Your task to perform on an android device: turn on bluetooth scan Image 0: 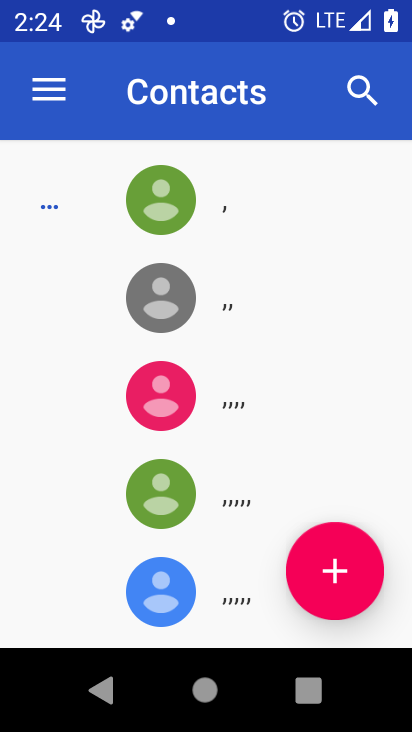
Step 0: press home button
Your task to perform on an android device: turn on bluetooth scan Image 1: 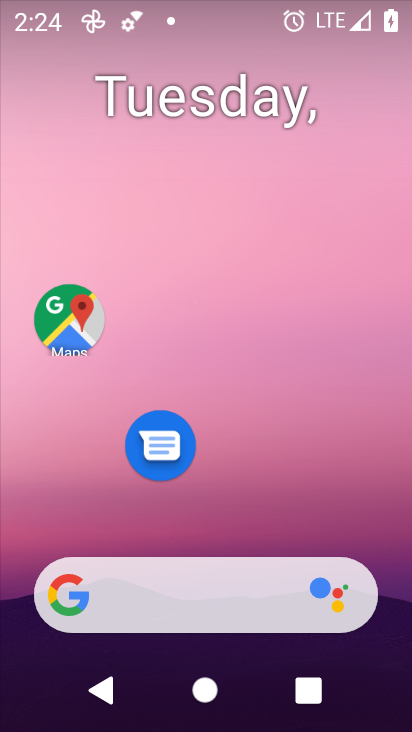
Step 1: drag from (272, 512) to (237, 60)
Your task to perform on an android device: turn on bluetooth scan Image 2: 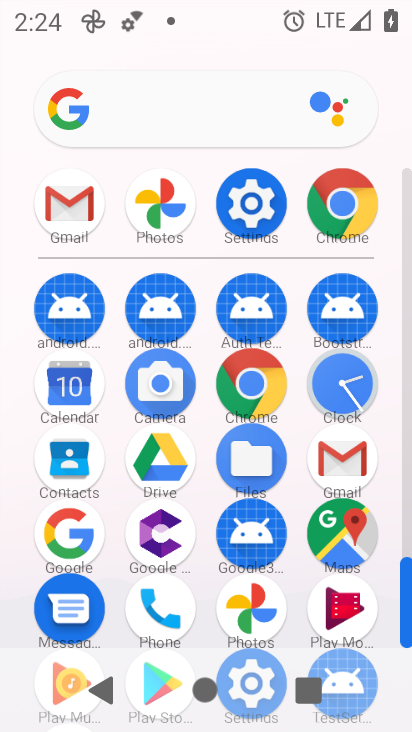
Step 2: click (240, 203)
Your task to perform on an android device: turn on bluetooth scan Image 3: 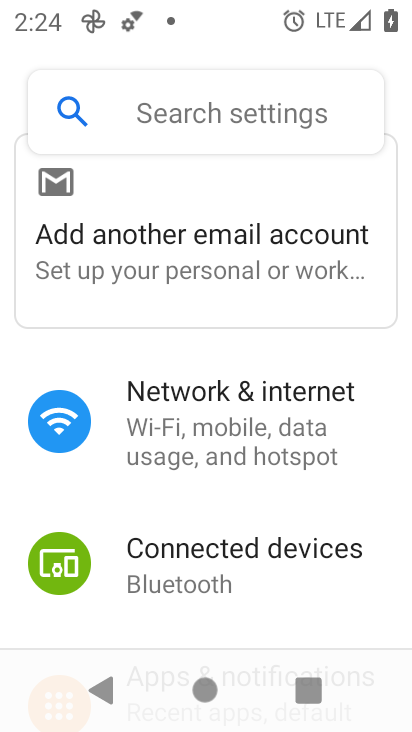
Step 3: drag from (314, 589) to (286, 206)
Your task to perform on an android device: turn on bluetooth scan Image 4: 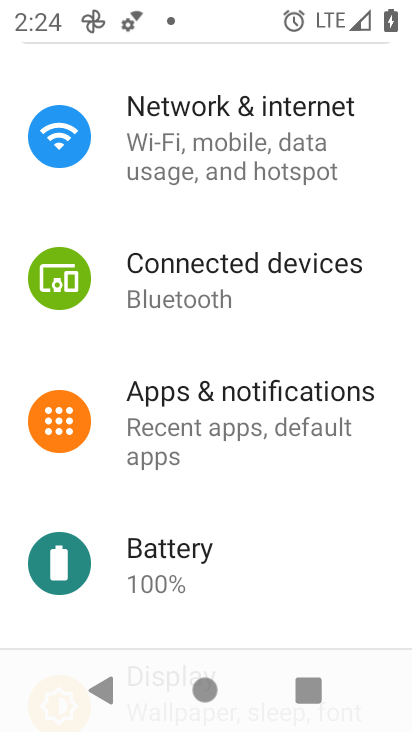
Step 4: drag from (299, 464) to (275, 204)
Your task to perform on an android device: turn on bluetooth scan Image 5: 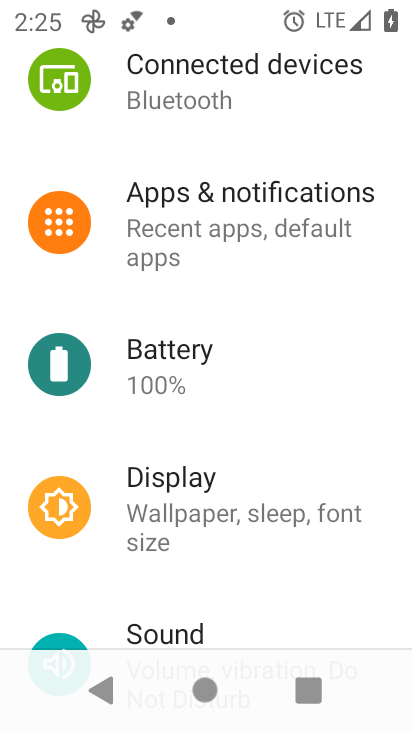
Step 5: drag from (284, 419) to (264, 161)
Your task to perform on an android device: turn on bluetooth scan Image 6: 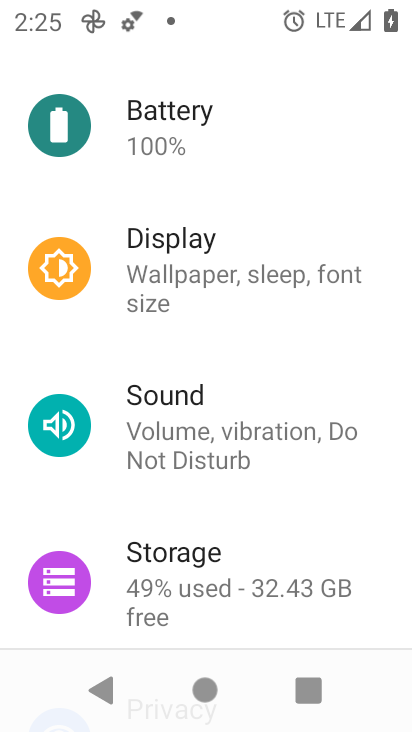
Step 6: drag from (235, 365) to (215, 129)
Your task to perform on an android device: turn on bluetooth scan Image 7: 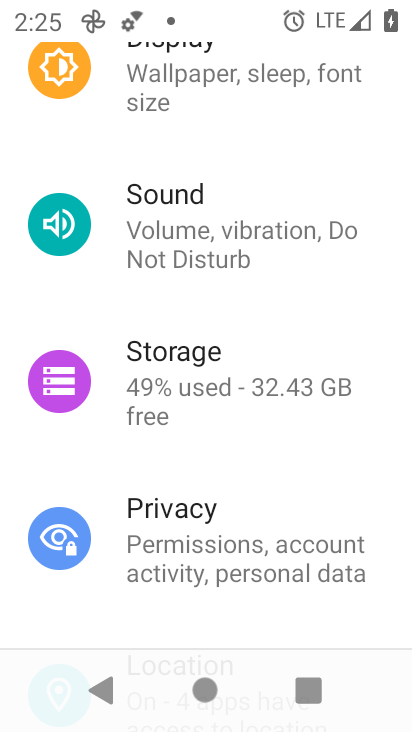
Step 7: drag from (218, 441) to (207, 227)
Your task to perform on an android device: turn on bluetooth scan Image 8: 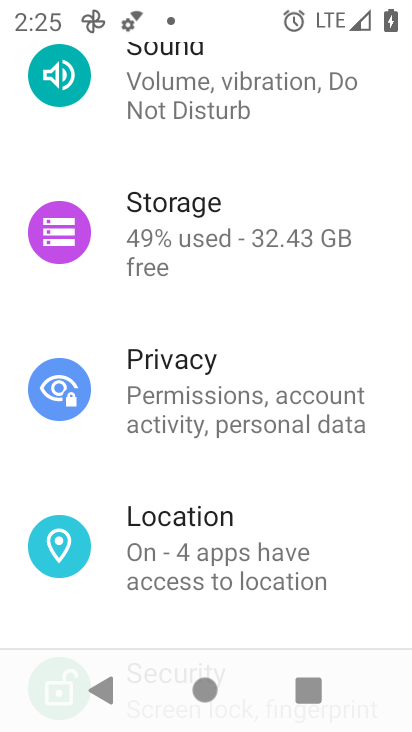
Step 8: click (188, 516)
Your task to perform on an android device: turn on bluetooth scan Image 9: 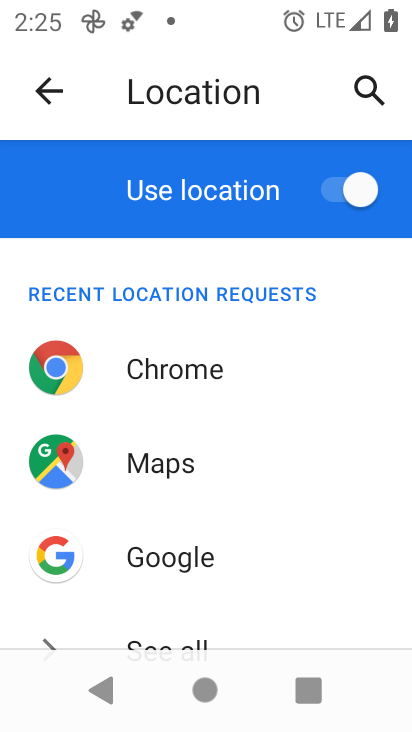
Step 9: drag from (226, 571) to (198, 147)
Your task to perform on an android device: turn on bluetooth scan Image 10: 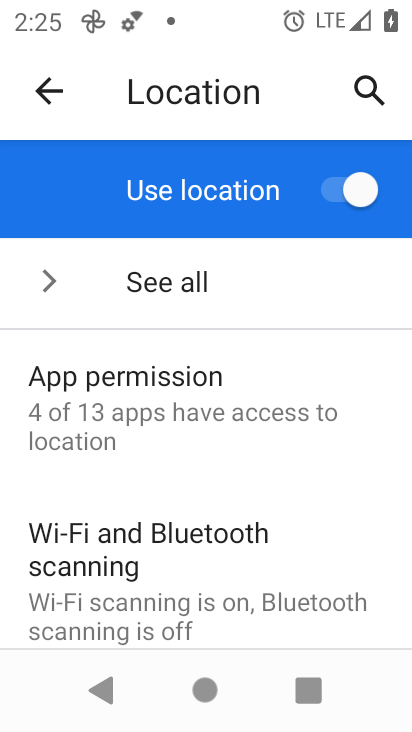
Step 10: drag from (293, 467) to (292, 272)
Your task to perform on an android device: turn on bluetooth scan Image 11: 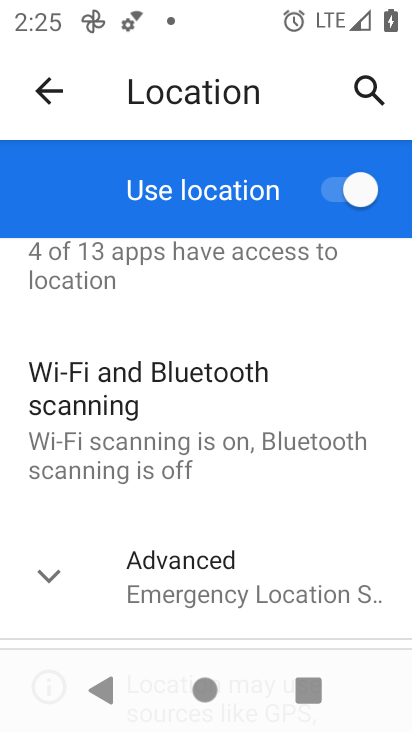
Step 11: click (73, 405)
Your task to perform on an android device: turn on bluetooth scan Image 12: 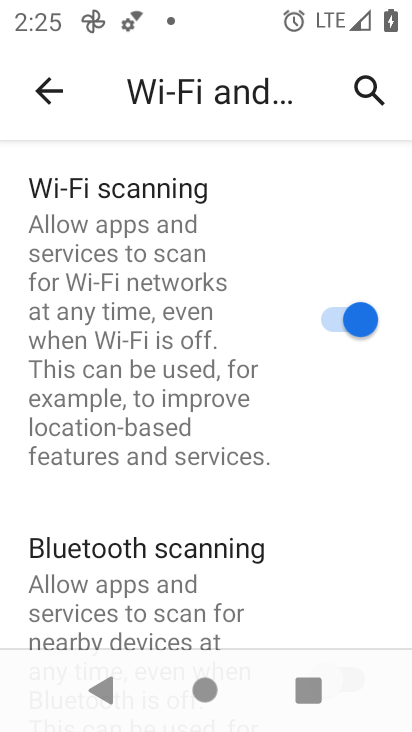
Step 12: drag from (328, 523) to (247, 179)
Your task to perform on an android device: turn on bluetooth scan Image 13: 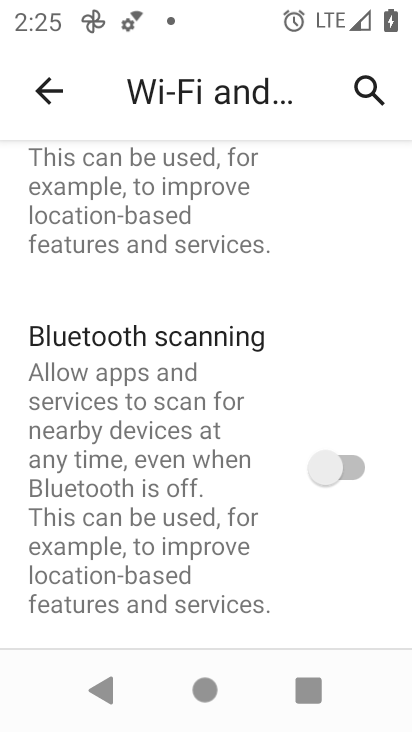
Step 13: click (326, 457)
Your task to perform on an android device: turn on bluetooth scan Image 14: 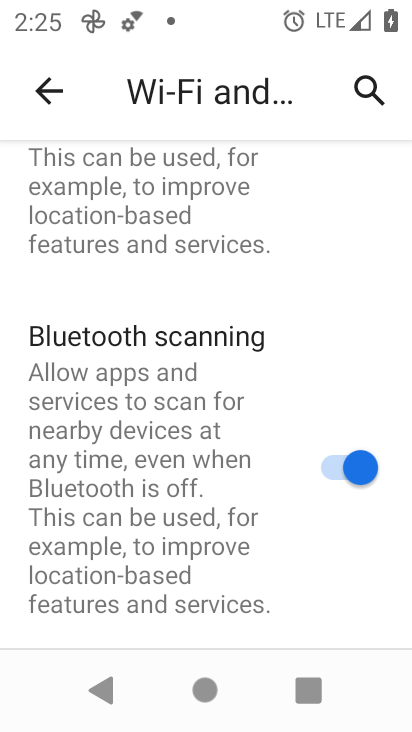
Step 14: task complete